Your task to perform on an android device: turn on priority inbox in the gmail app Image 0: 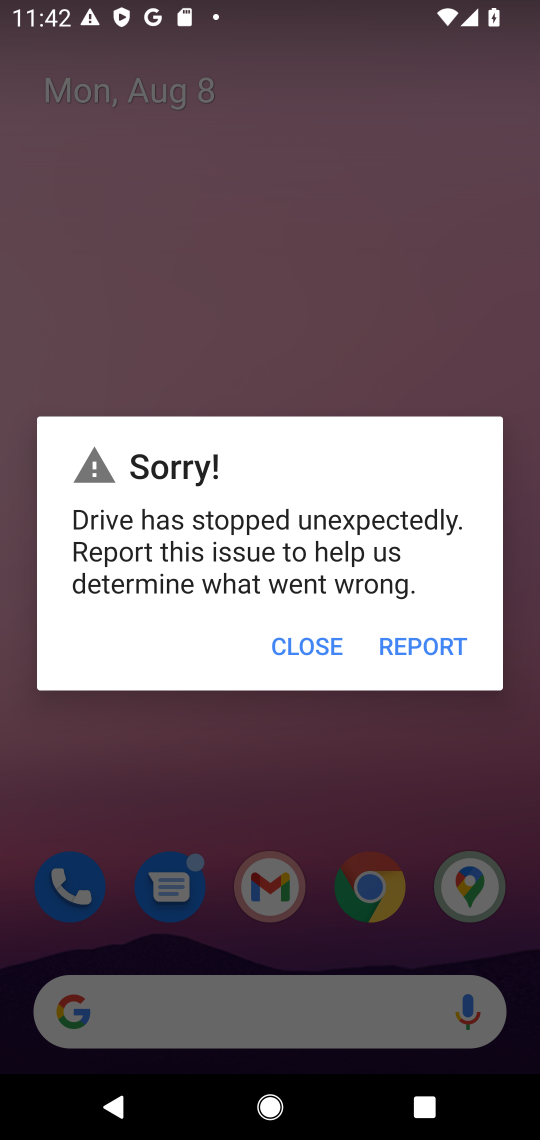
Step 0: press home button
Your task to perform on an android device: turn on priority inbox in the gmail app Image 1: 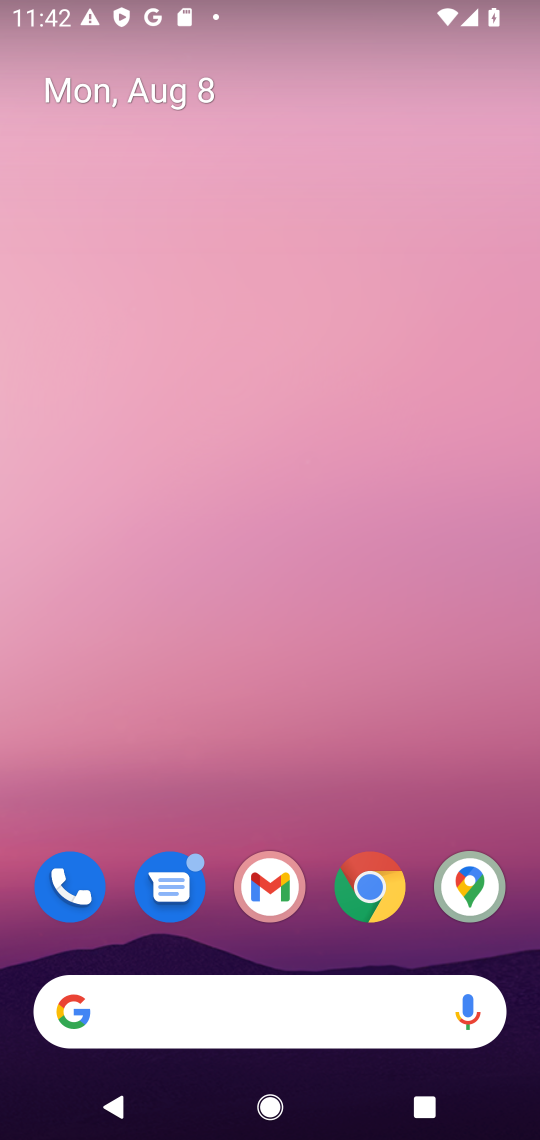
Step 1: click (270, 879)
Your task to perform on an android device: turn on priority inbox in the gmail app Image 2: 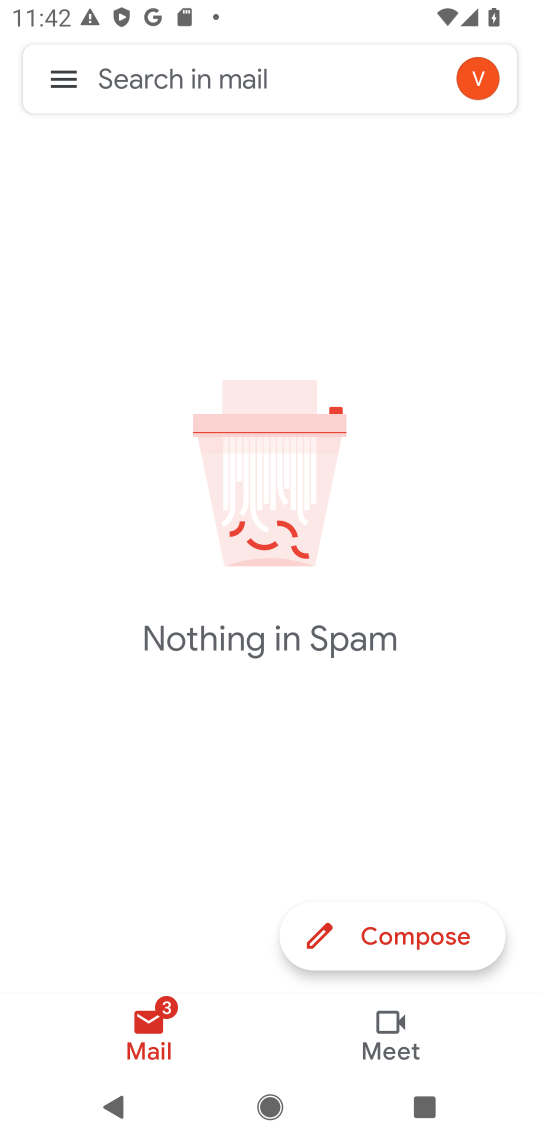
Step 2: click (64, 73)
Your task to perform on an android device: turn on priority inbox in the gmail app Image 3: 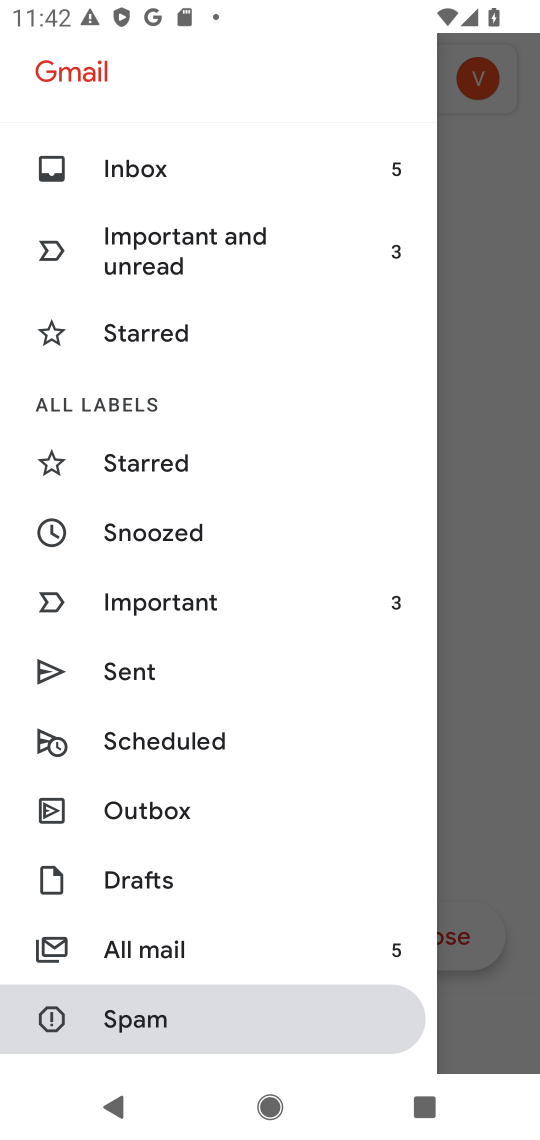
Step 3: drag from (223, 882) to (272, 236)
Your task to perform on an android device: turn on priority inbox in the gmail app Image 4: 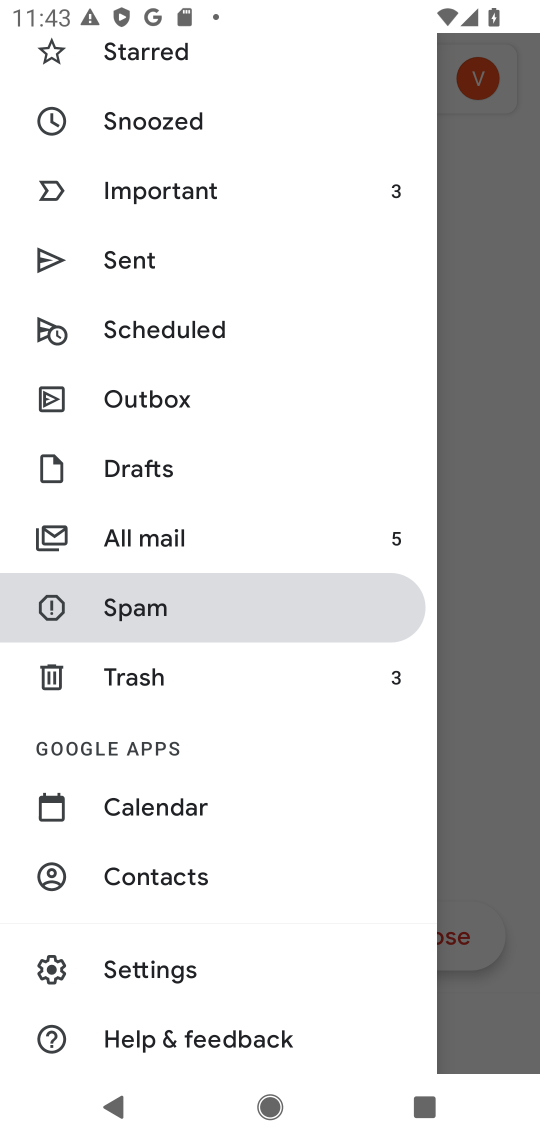
Step 4: click (151, 985)
Your task to perform on an android device: turn on priority inbox in the gmail app Image 5: 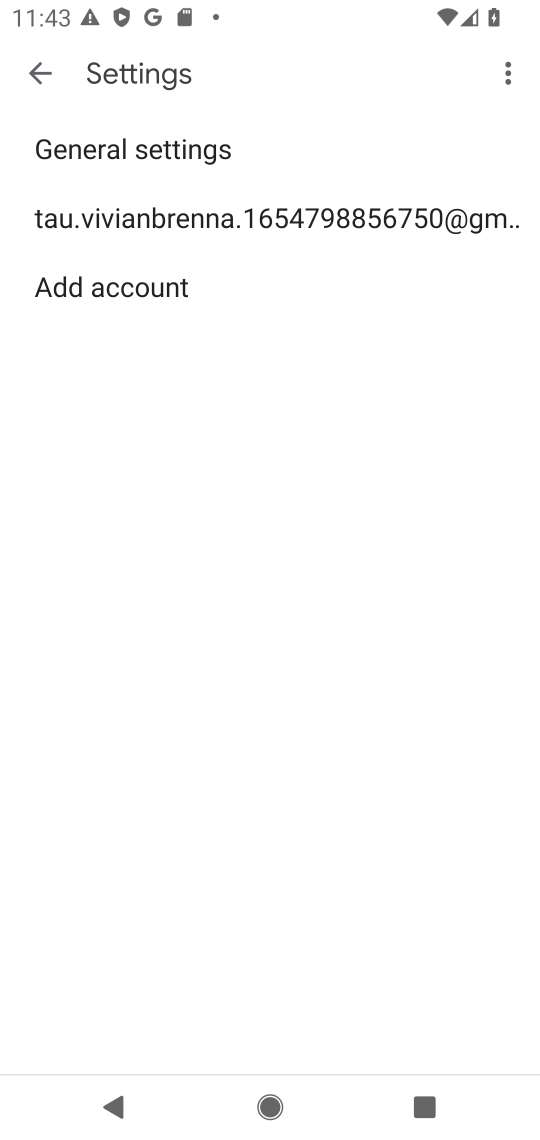
Step 5: click (214, 224)
Your task to perform on an android device: turn on priority inbox in the gmail app Image 6: 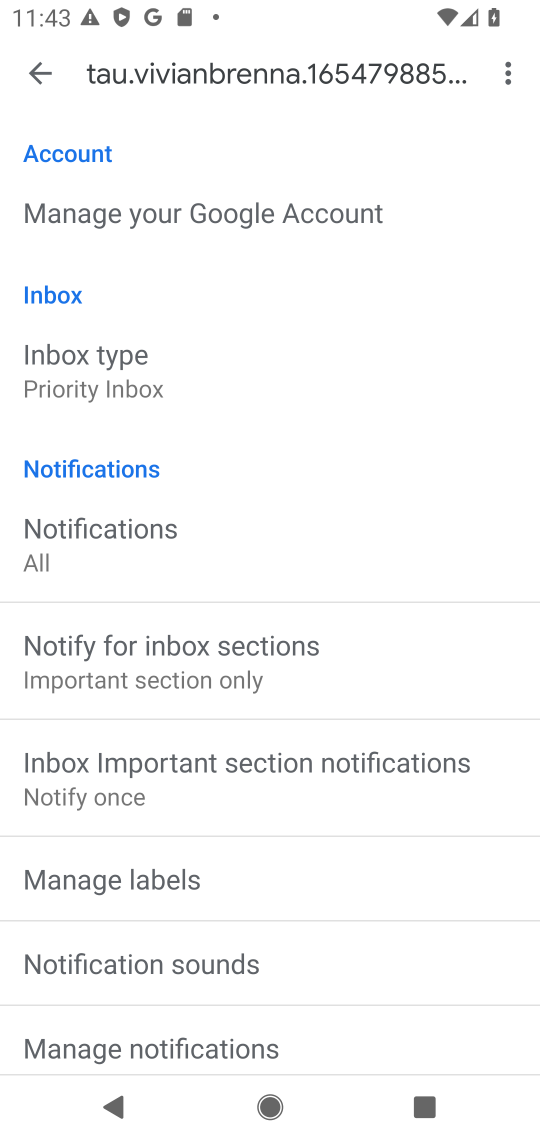
Step 6: click (78, 351)
Your task to perform on an android device: turn on priority inbox in the gmail app Image 7: 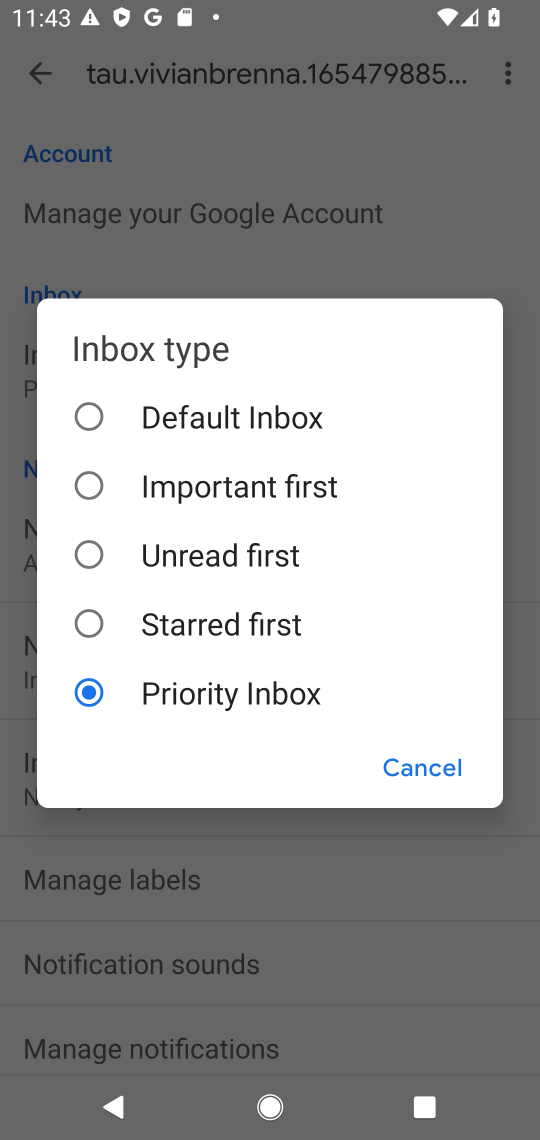
Step 7: task complete